Your task to perform on an android device: Turn off the flashlight Image 0: 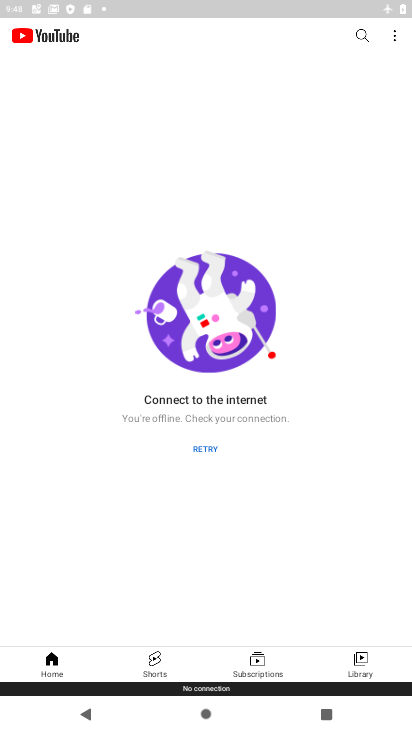
Step 0: press home button
Your task to perform on an android device: Turn off the flashlight Image 1: 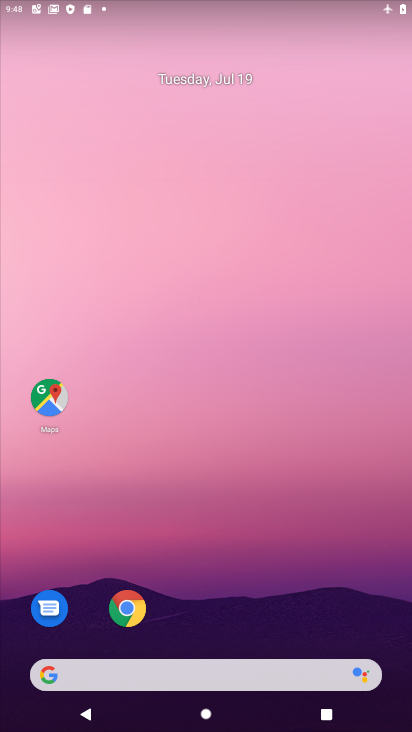
Step 1: drag from (291, 589) to (316, 95)
Your task to perform on an android device: Turn off the flashlight Image 2: 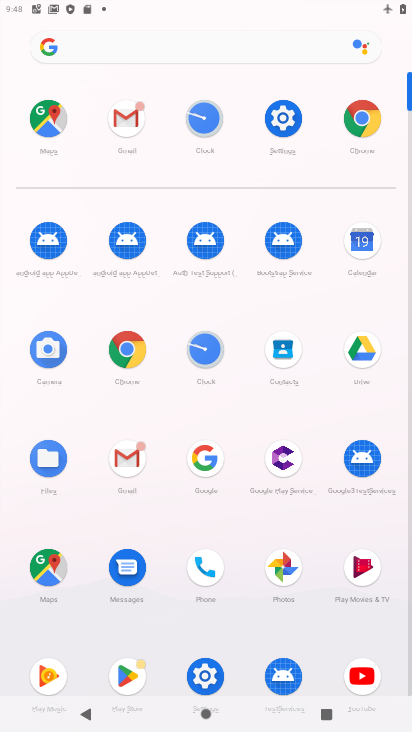
Step 2: click (276, 108)
Your task to perform on an android device: Turn off the flashlight Image 3: 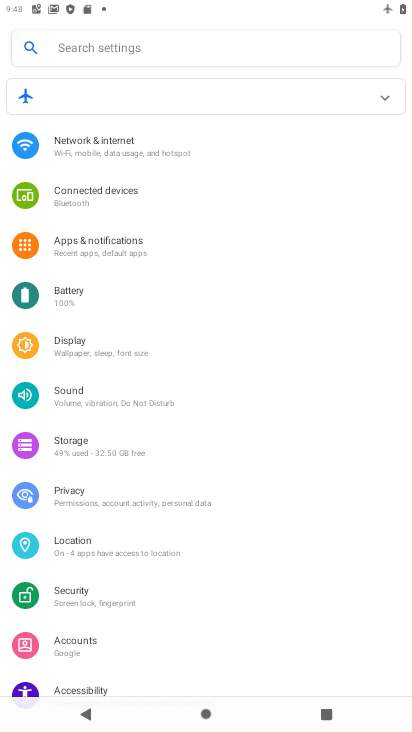
Step 3: click (91, 346)
Your task to perform on an android device: Turn off the flashlight Image 4: 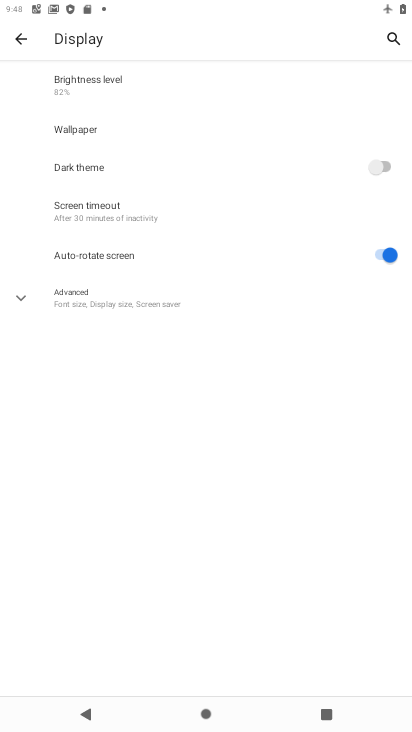
Step 4: task complete